Your task to perform on an android device: What is the recent news? Image 0: 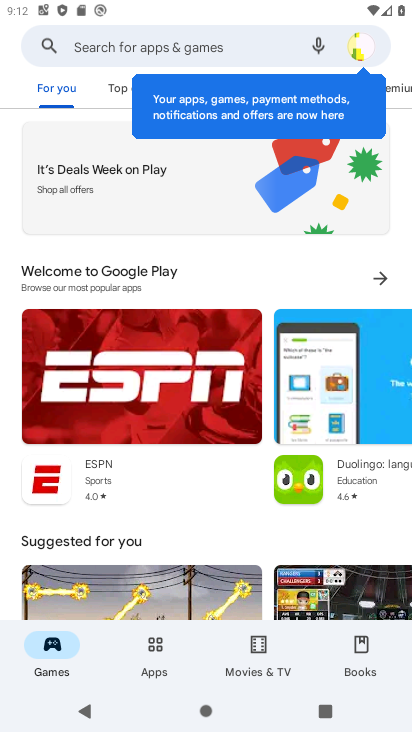
Step 0: press home button
Your task to perform on an android device: What is the recent news? Image 1: 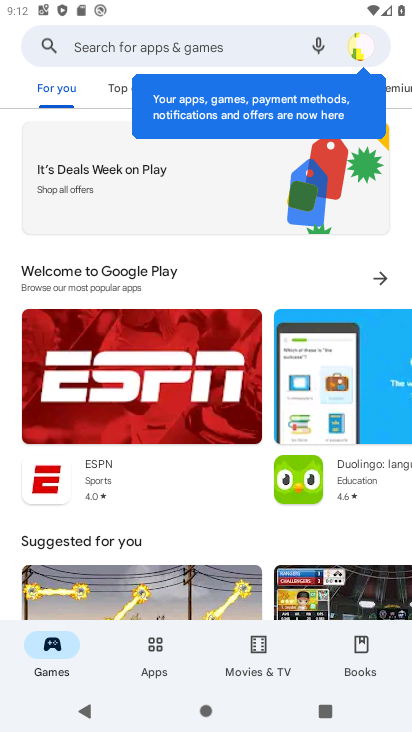
Step 1: press home button
Your task to perform on an android device: What is the recent news? Image 2: 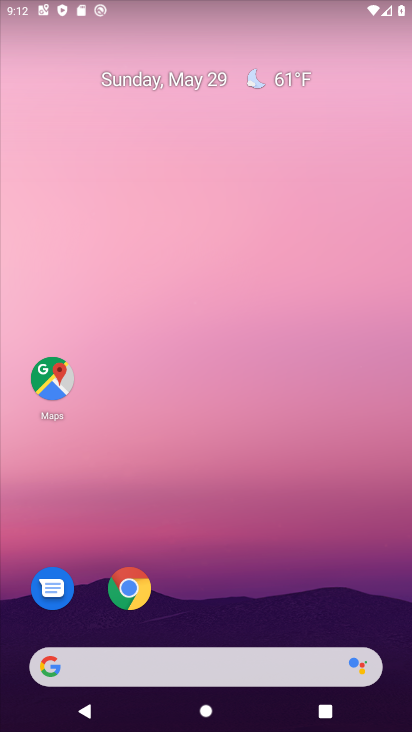
Step 2: drag from (294, 587) to (330, 136)
Your task to perform on an android device: What is the recent news? Image 3: 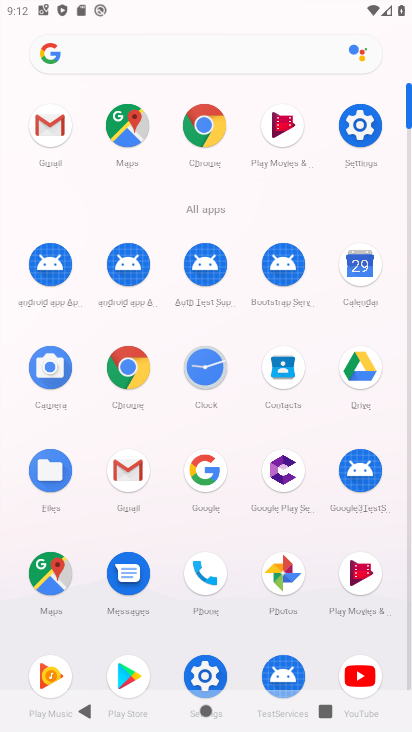
Step 3: click (134, 375)
Your task to perform on an android device: What is the recent news? Image 4: 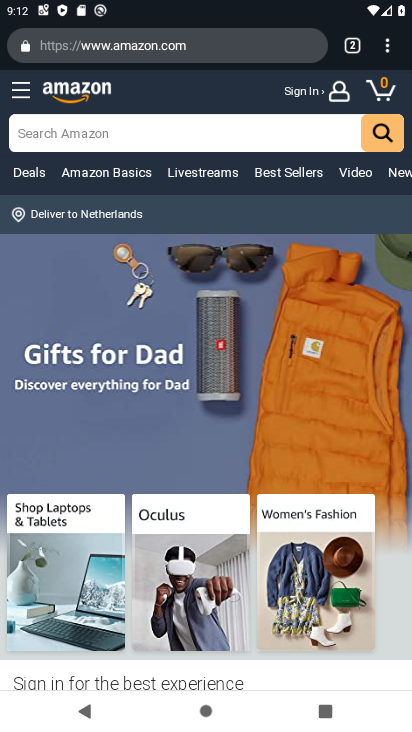
Step 4: click (223, 41)
Your task to perform on an android device: What is the recent news? Image 5: 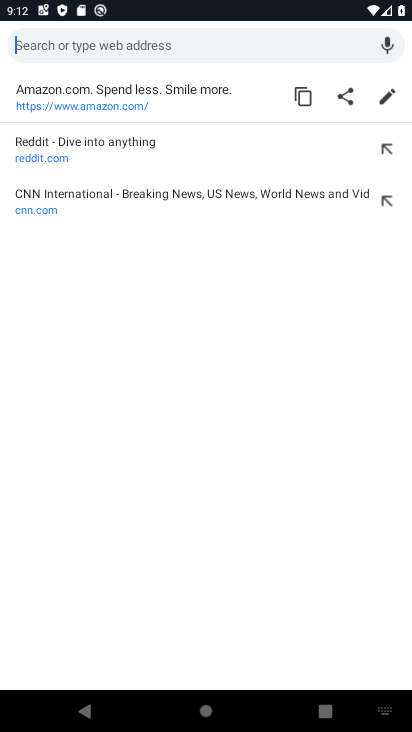
Step 5: type "news"
Your task to perform on an android device: What is the recent news? Image 6: 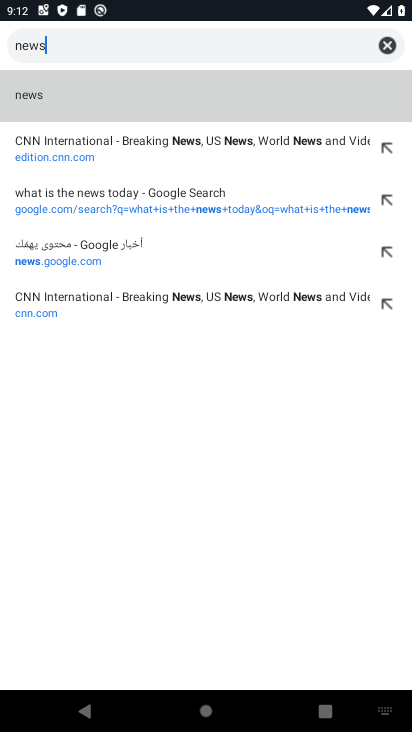
Step 6: click (9, 107)
Your task to perform on an android device: What is the recent news? Image 7: 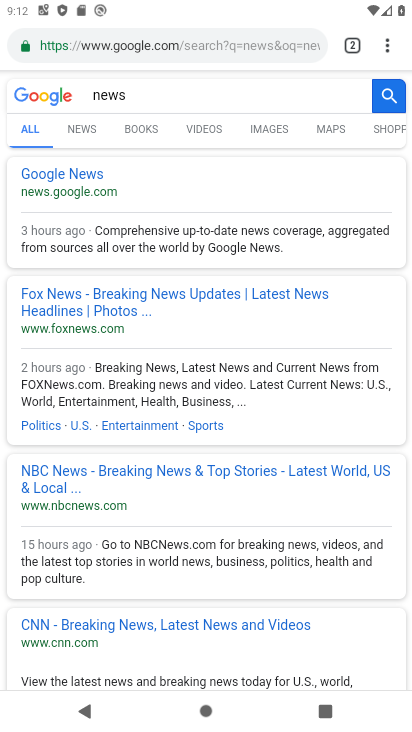
Step 7: click (87, 132)
Your task to perform on an android device: What is the recent news? Image 8: 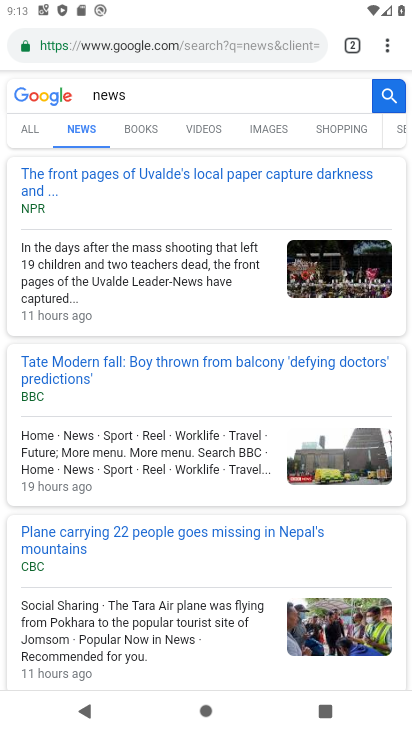
Step 8: task complete